Your task to perform on an android device: Go to Android settings Image 0: 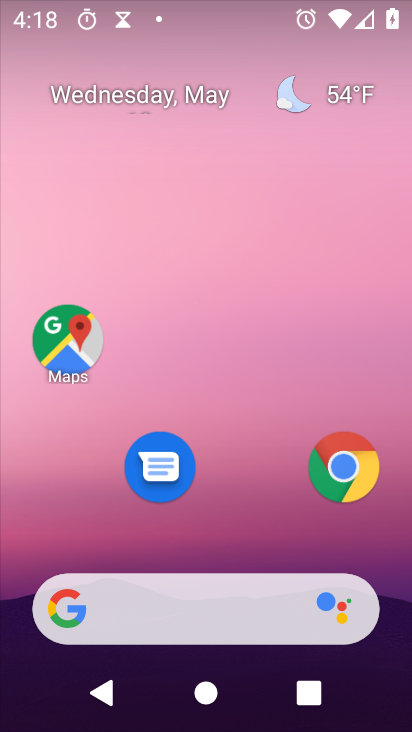
Step 0: click (263, 6)
Your task to perform on an android device: Go to Android settings Image 1: 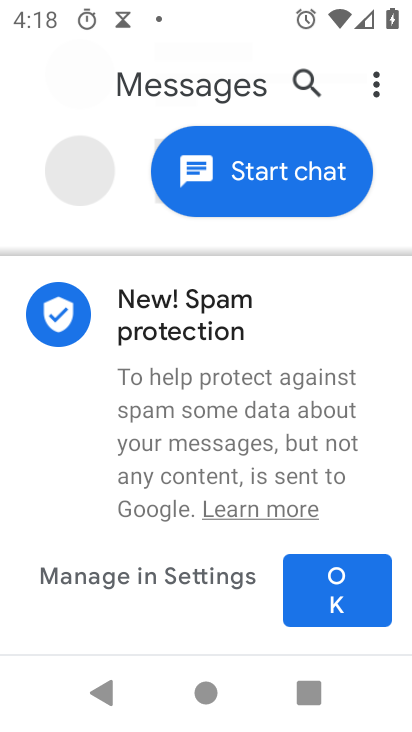
Step 1: press home button
Your task to perform on an android device: Go to Android settings Image 2: 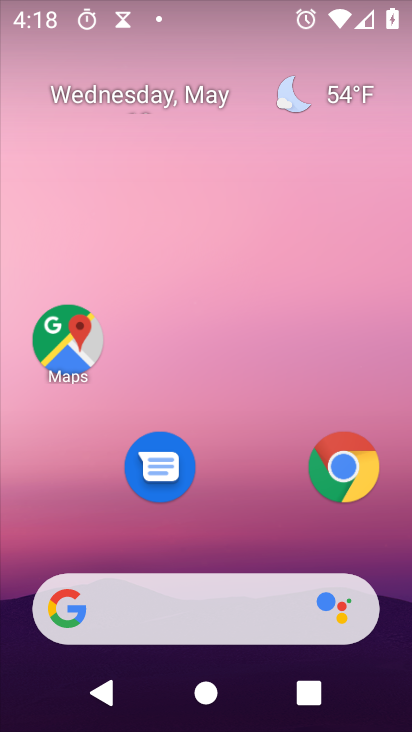
Step 2: drag from (284, 511) to (117, 27)
Your task to perform on an android device: Go to Android settings Image 3: 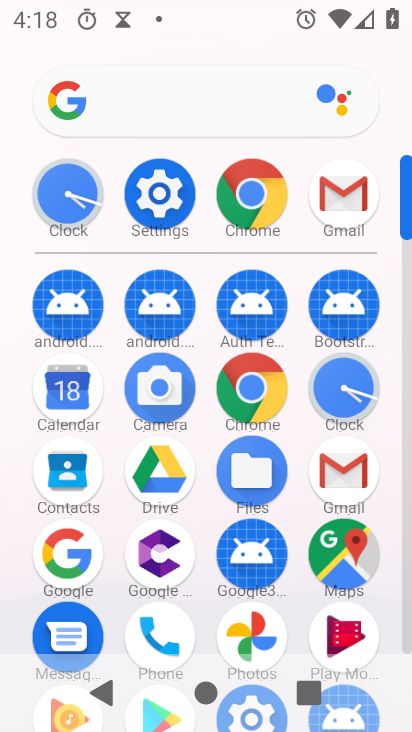
Step 3: click (164, 199)
Your task to perform on an android device: Go to Android settings Image 4: 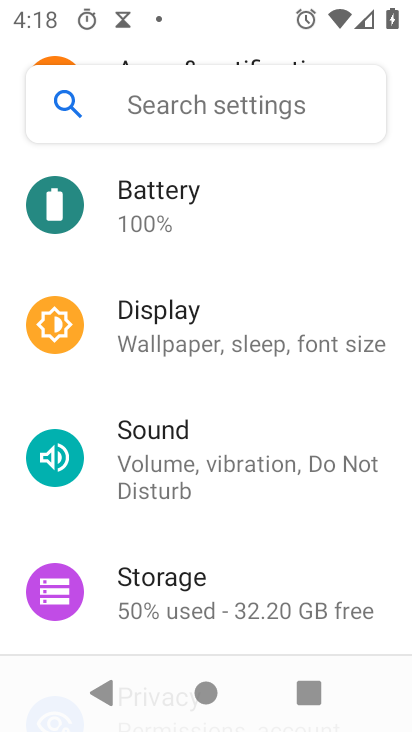
Step 4: task complete